Your task to perform on an android device: manage bookmarks in the chrome app Image 0: 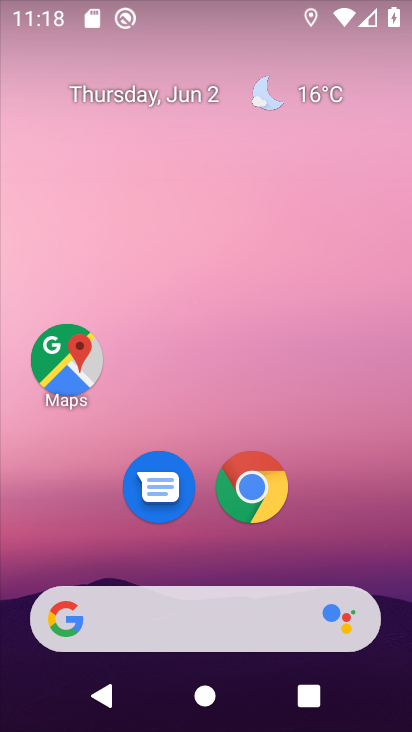
Step 0: click (251, 490)
Your task to perform on an android device: manage bookmarks in the chrome app Image 1: 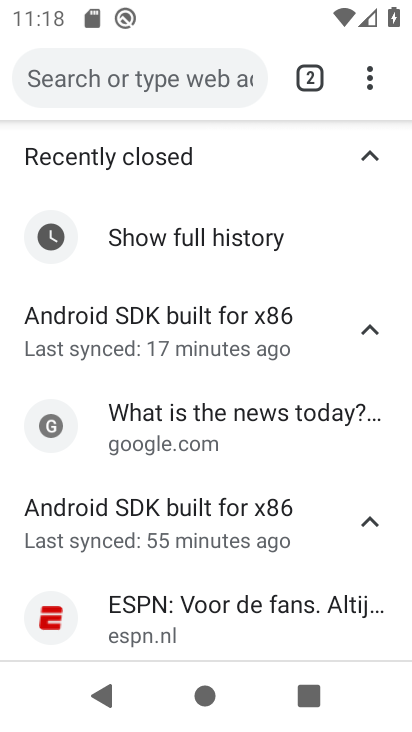
Step 1: click (370, 75)
Your task to perform on an android device: manage bookmarks in the chrome app Image 2: 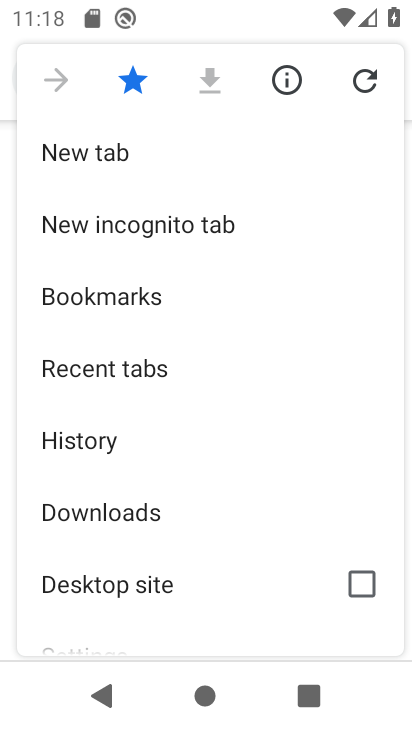
Step 2: click (152, 294)
Your task to perform on an android device: manage bookmarks in the chrome app Image 3: 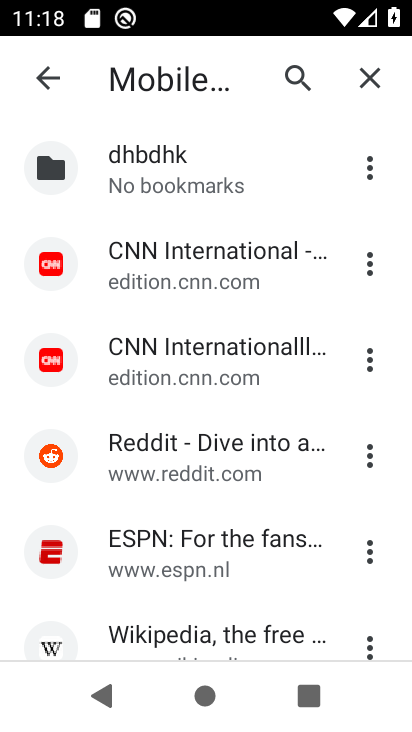
Step 3: click (367, 170)
Your task to perform on an android device: manage bookmarks in the chrome app Image 4: 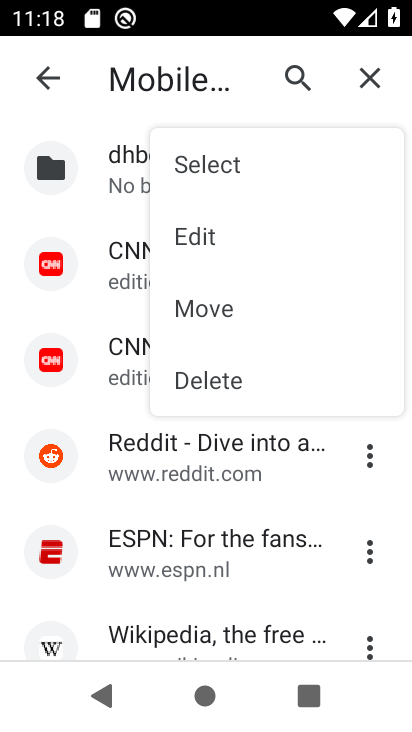
Step 4: click (213, 230)
Your task to perform on an android device: manage bookmarks in the chrome app Image 5: 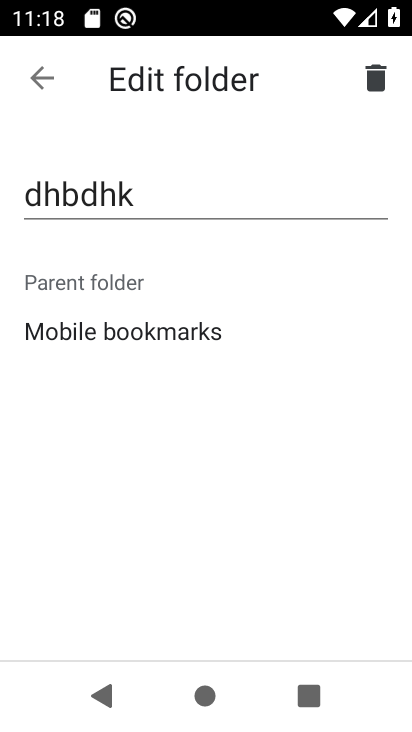
Step 5: click (375, 85)
Your task to perform on an android device: manage bookmarks in the chrome app Image 6: 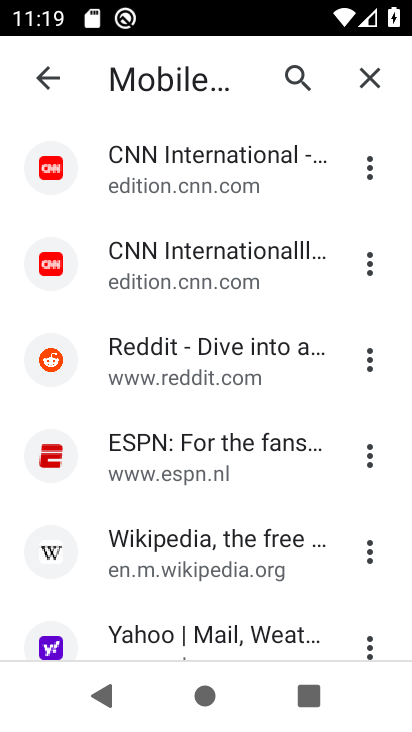
Step 6: task complete